Your task to perform on an android device: find snoozed emails in the gmail app Image 0: 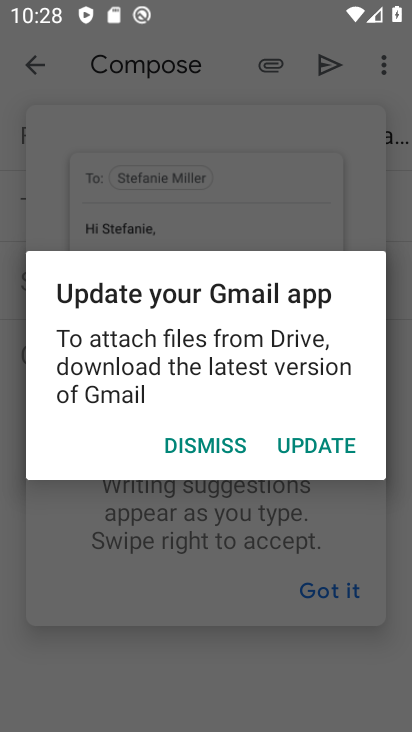
Step 0: press home button
Your task to perform on an android device: find snoozed emails in the gmail app Image 1: 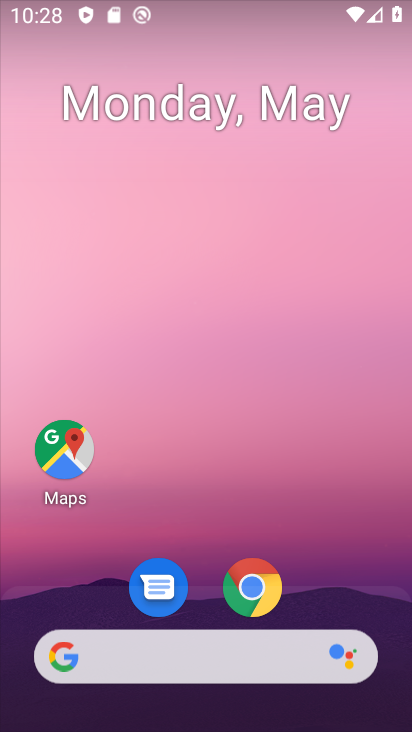
Step 1: drag from (202, 390) to (196, 20)
Your task to perform on an android device: find snoozed emails in the gmail app Image 2: 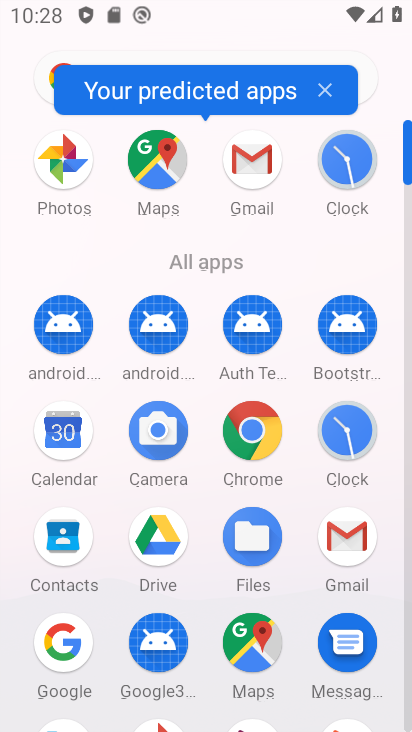
Step 2: click (360, 542)
Your task to perform on an android device: find snoozed emails in the gmail app Image 3: 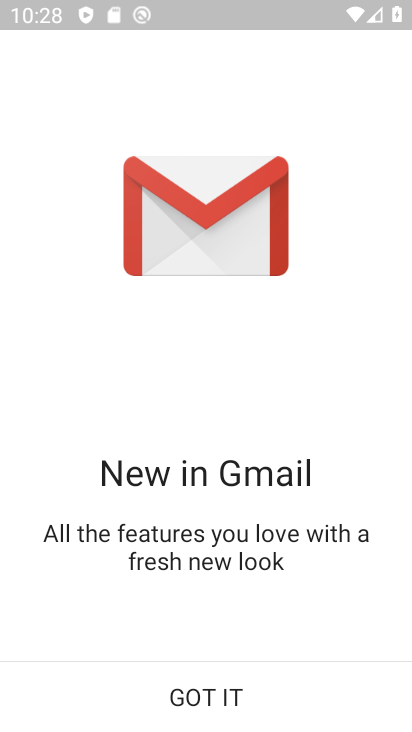
Step 3: click (171, 658)
Your task to perform on an android device: find snoozed emails in the gmail app Image 4: 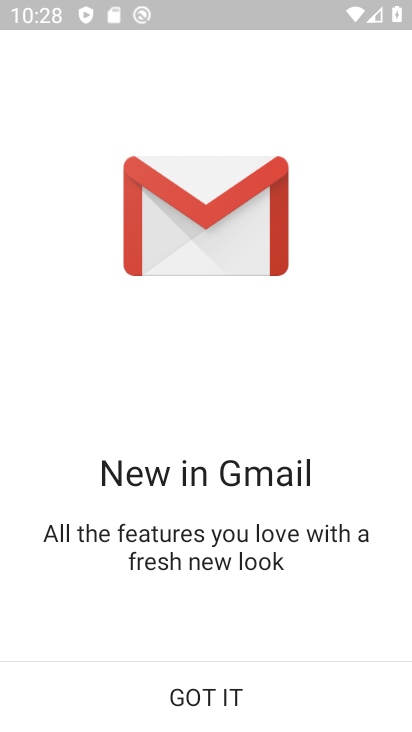
Step 4: click (182, 687)
Your task to perform on an android device: find snoozed emails in the gmail app Image 5: 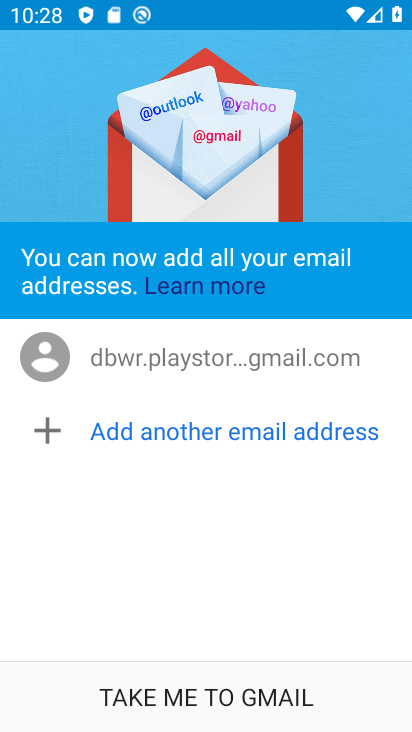
Step 5: click (216, 678)
Your task to perform on an android device: find snoozed emails in the gmail app Image 6: 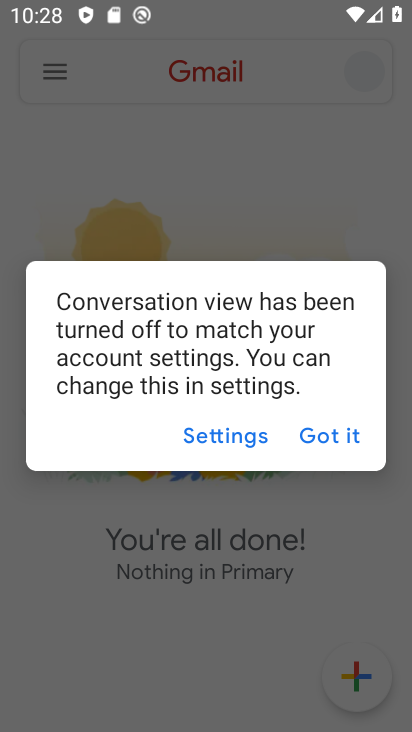
Step 6: click (324, 439)
Your task to perform on an android device: find snoozed emails in the gmail app Image 7: 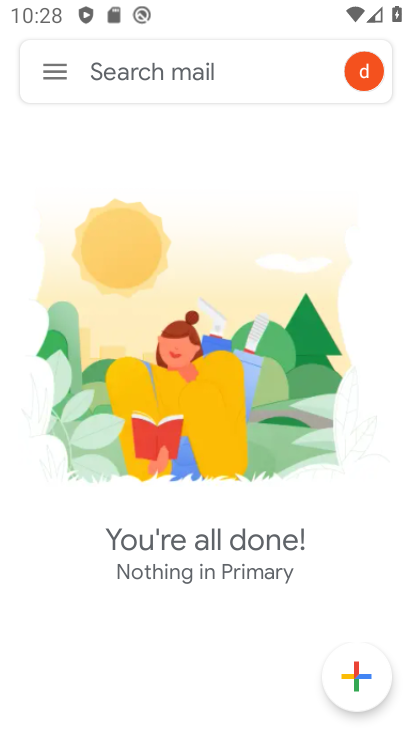
Step 7: click (45, 70)
Your task to perform on an android device: find snoozed emails in the gmail app Image 8: 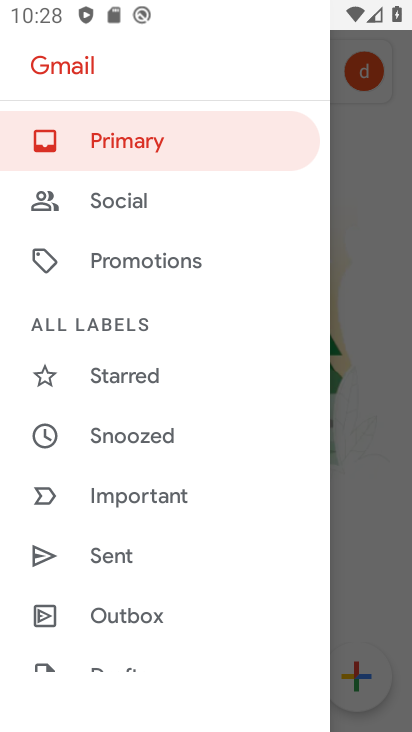
Step 8: click (115, 427)
Your task to perform on an android device: find snoozed emails in the gmail app Image 9: 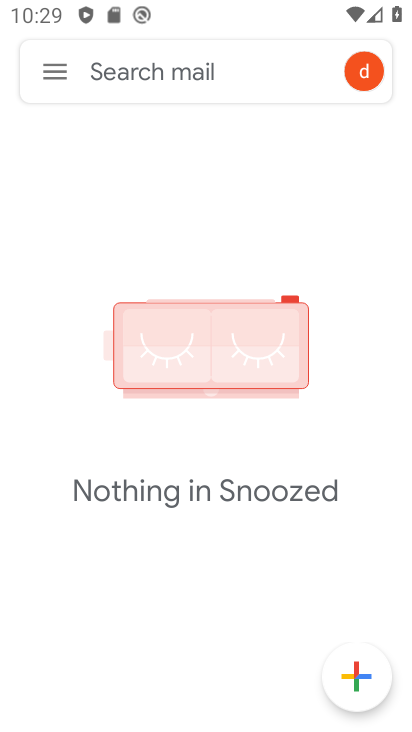
Step 9: task complete